Your task to perform on an android device: turn on improve location accuracy Image 0: 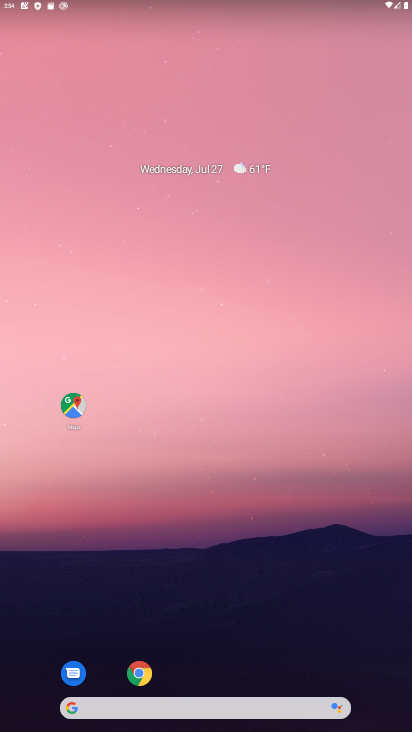
Step 0: drag from (259, 596) to (190, 13)
Your task to perform on an android device: turn on improve location accuracy Image 1: 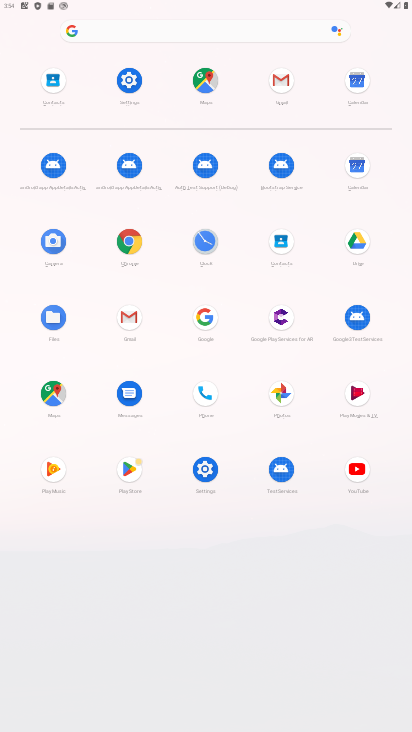
Step 1: click (206, 475)
Your task to perform on an android device: turn on improve location accuracy Image 2: 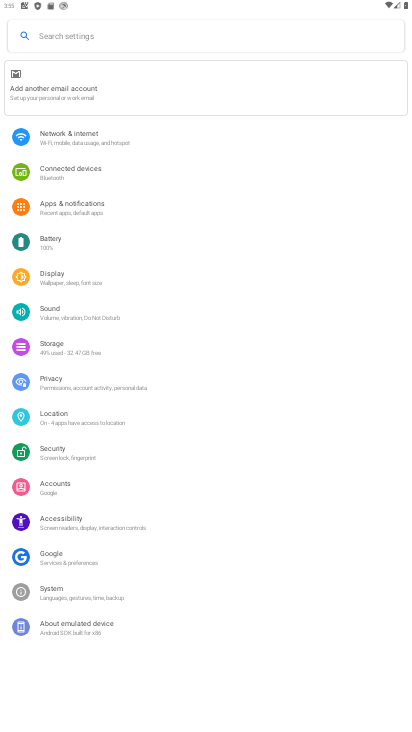
Step 2: click (93, 420)
Your task to perform on an android device: turn on improve location accuracy Image 3: 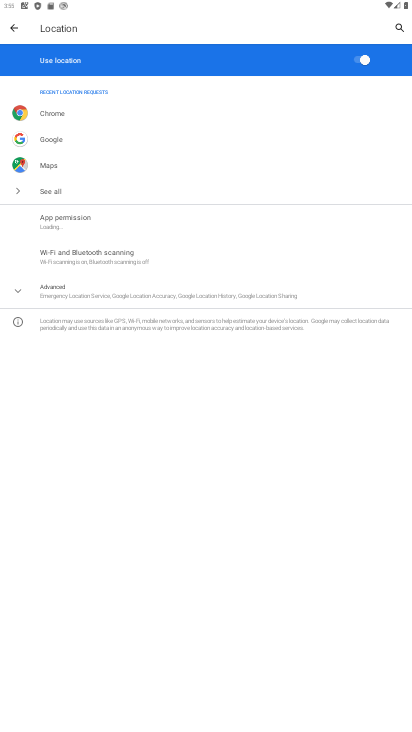
Step 3: click (99, 298)
Your task to perform on an android device: turn on improve location accuracy Image 4: 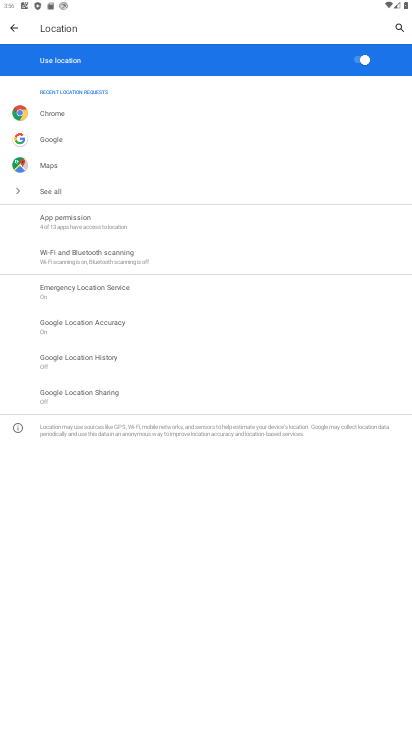
Step 4: click (84, 323)
Your task to perform on an android device: turn on improve location accuracy Image 5: 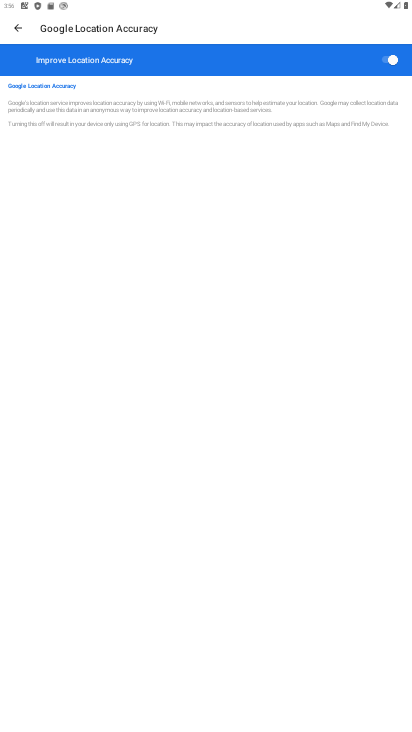
Step 5: task complete